Your task to perform on an android device: Is it going to rain this weekend? Image 0: 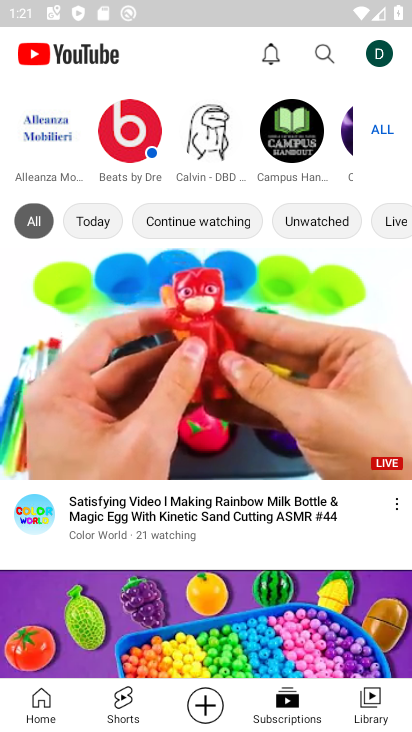
Step 0: press home button
Your task to perform on an android device: Is it going to rain this weekend? Image 1: 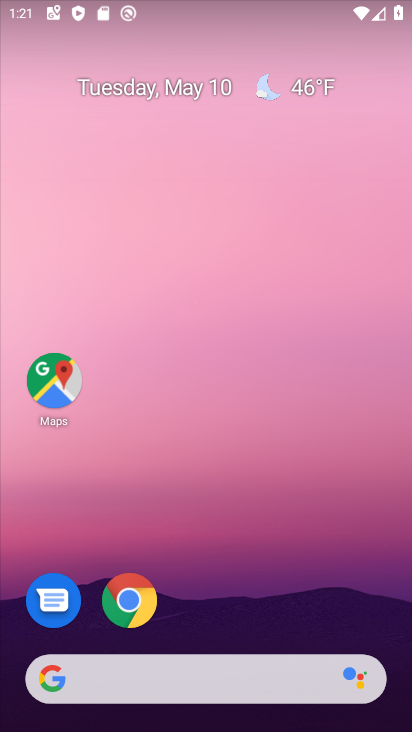
Step 1: click (304, 90)
Your task to perform on an android device: Is it going to rain this weekend? Image 2: 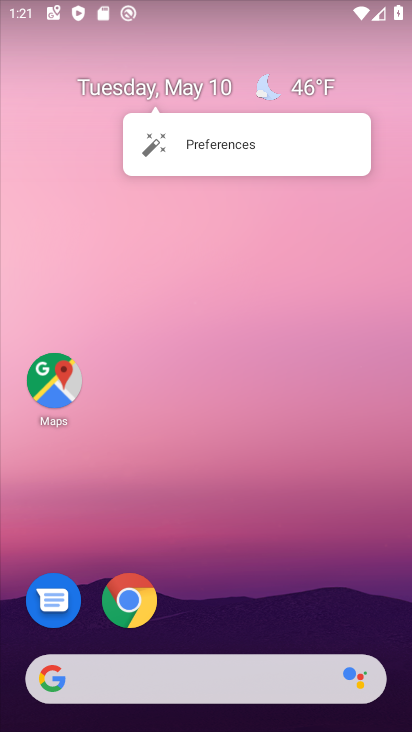
Step 2: click (295, 88)
Your task to perform on an android device: Is it going to rain this weekend? Image 3: 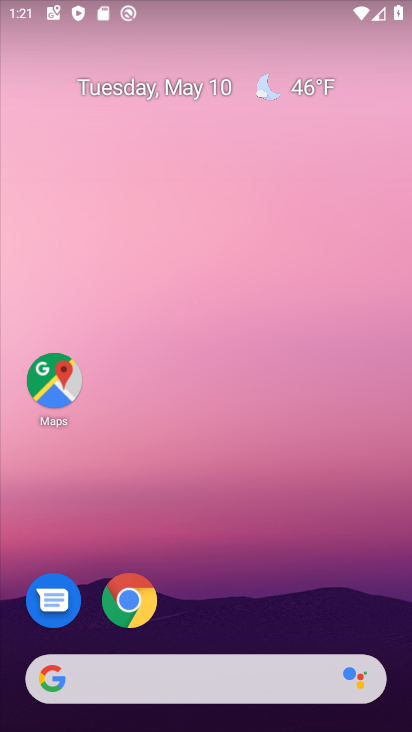
Step 3: click (306, 83)
Your task to perform on an android device: Is it going to rain this weekend? Image 4: 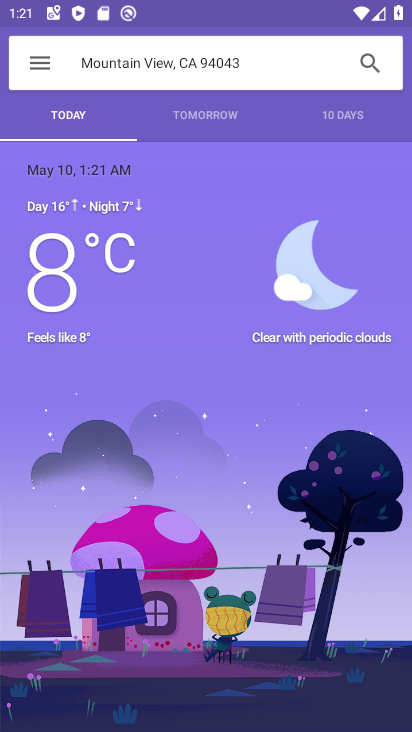
Step 4: click (329, 117)
Your task to perform on an android device: Is it going to rain this weekend? Image 5: 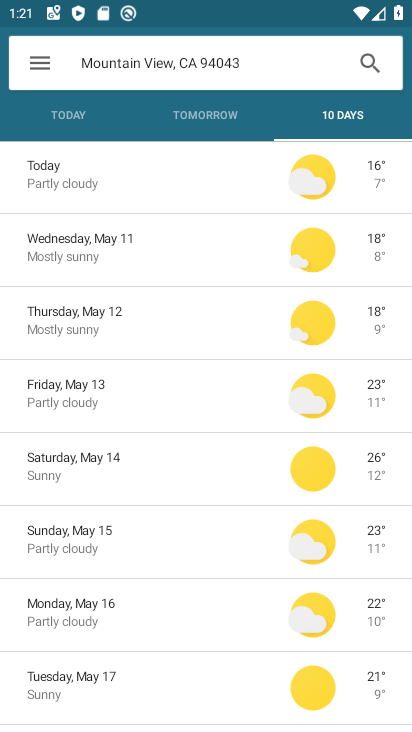
Step 5: click (103, 468)
Your task to perform on an android device: Is it going to rain this weekend? Image 6: 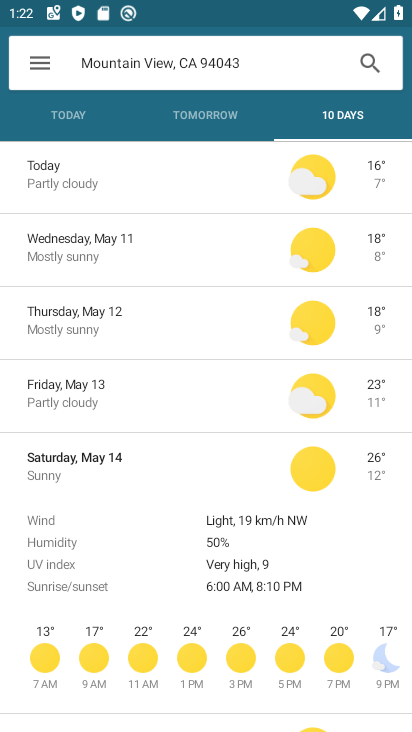
Step 6: task complete